Your task to perform on an android device: Open notification settings Image 0: 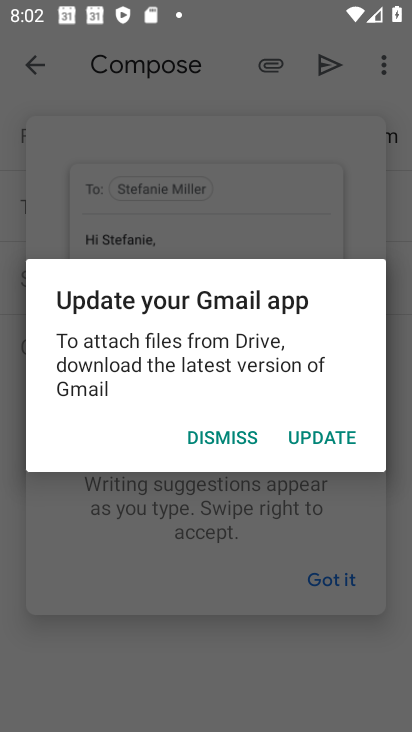
Step 0: press home button
Your task to perform on an android device: Open notification settings Image 1: 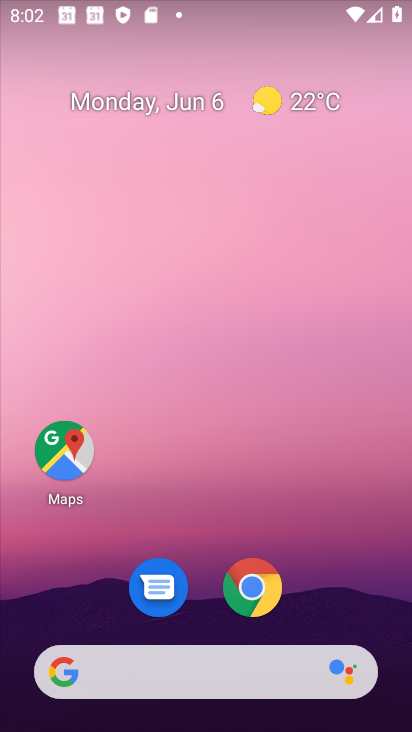
Step 1: drag from (198, 659) to (180, 264)
Your task to perform on an android device: Open notification settings Image 2: 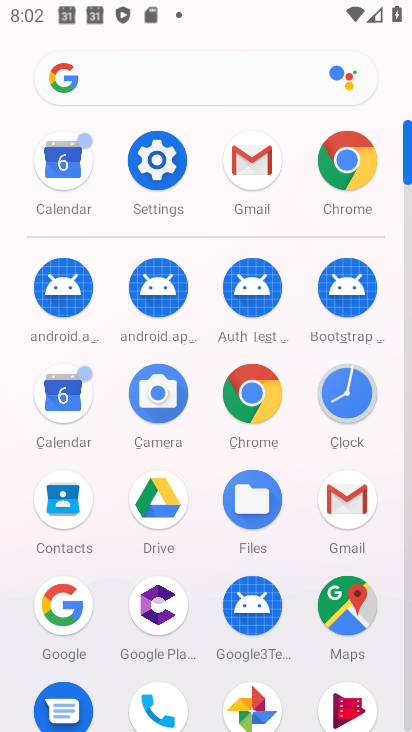
Step 2: click (156, 170)
Your task to perform on an android device: Open notification settings Image 3: 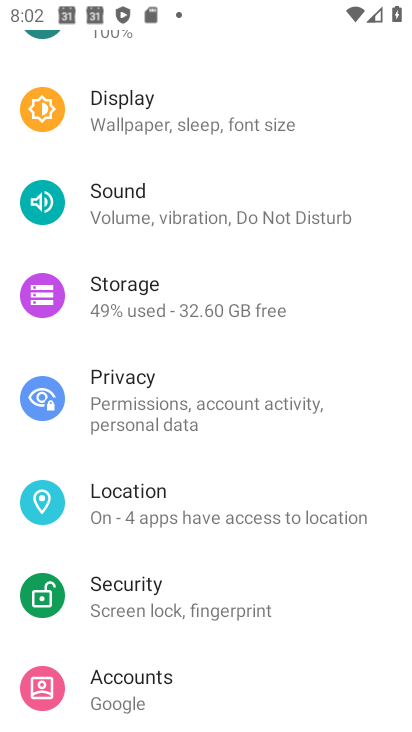
Step 3: drag from (192, 67) to (223, 593)
Your task to perform on an android device: Open notification settings Image 4: 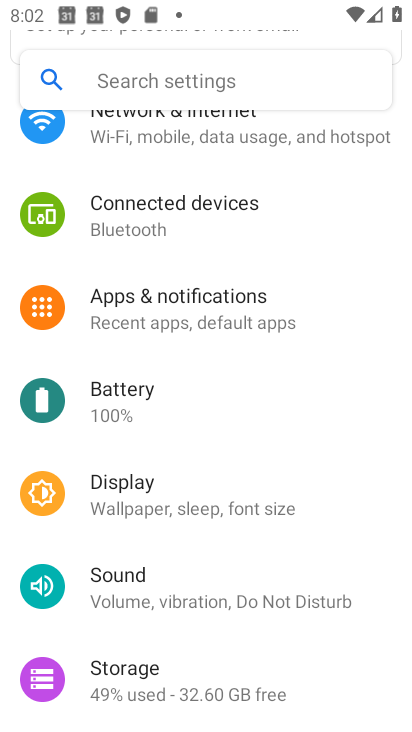
Step 4: click (201, 307)
Your task to perform on an android device: Open notification settings Image 5: 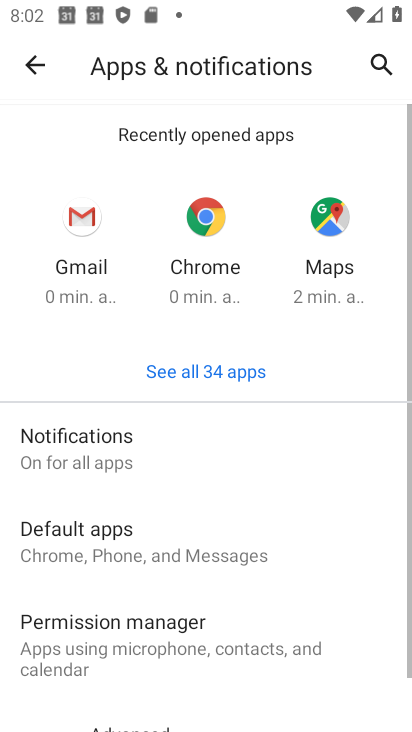
Step 5: drag from (209, 668) to (169, 258)
Your task to perform on an android device: Open notification settings Image 6: 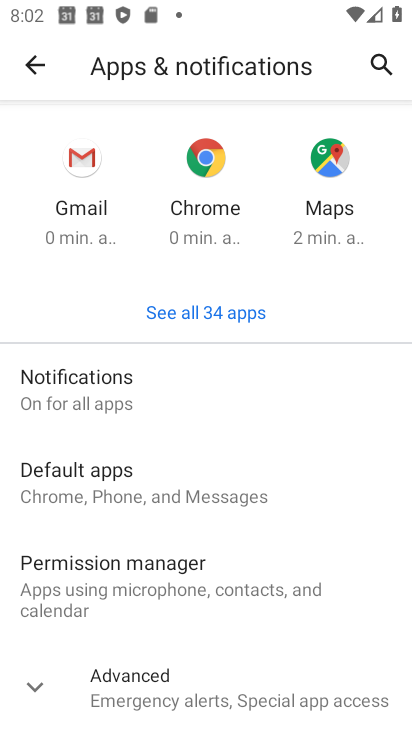
Step 6: click (152, 703)
Your task to perform on an android device: Open notification settings Image 7: 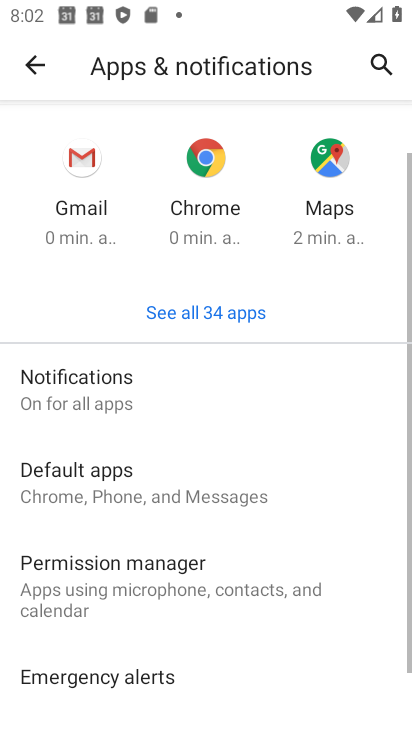
Step 7: task complete